Your task to perform on an android device: open chrome and create a bookmark for the current page Image 0: 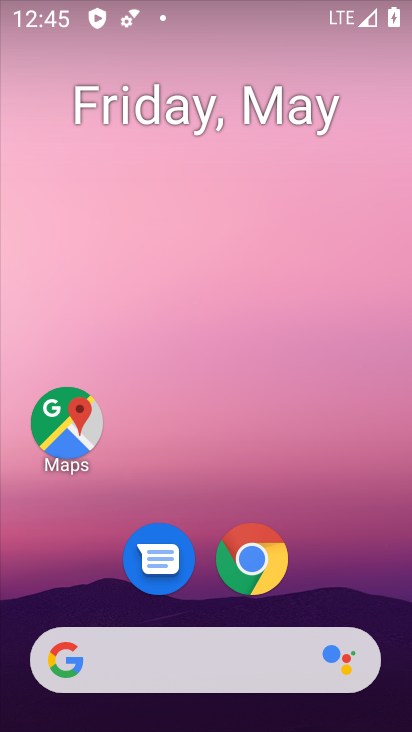
Step 0: drag from (356, 426) to (407, 121)
Your task to perform on an android device: open chrome and create a bookmark for the current page Image 1: 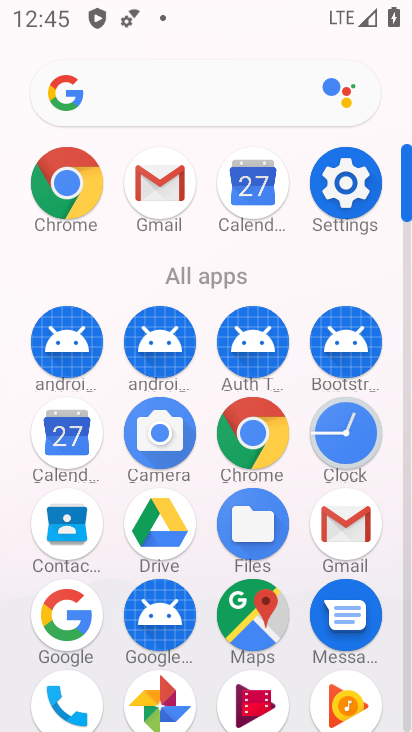
Step 1: click (261, 427)
Your task to perform on an android device: open chrome and create a bookmark for the current page Image 2: 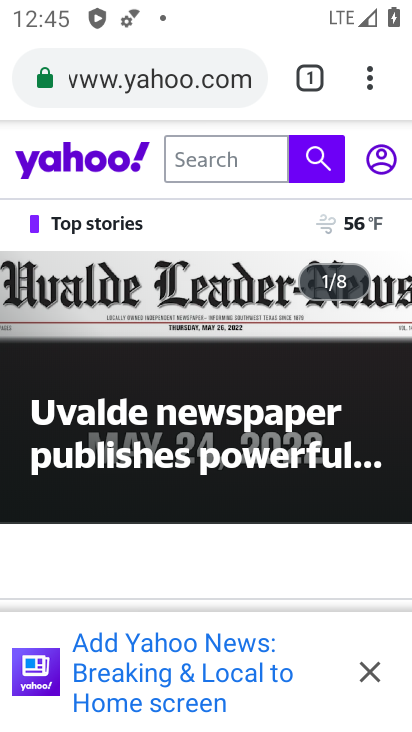
Step 2: task complete